Your task to perform on an android device: Go to network settings Image 0: 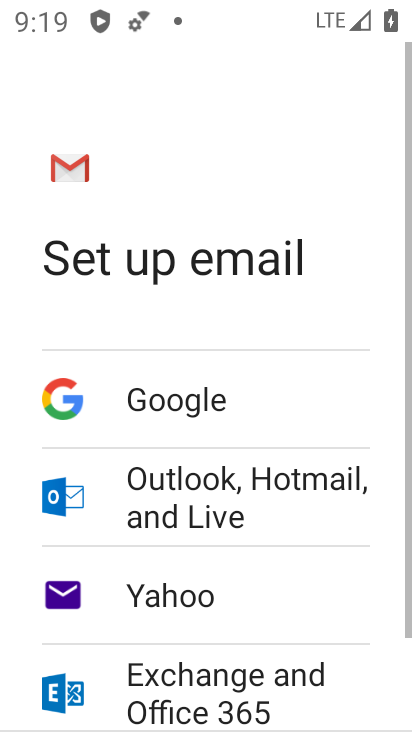
Step 0: press home button
Your task to perform on an android device: Go to network settings Image 1: 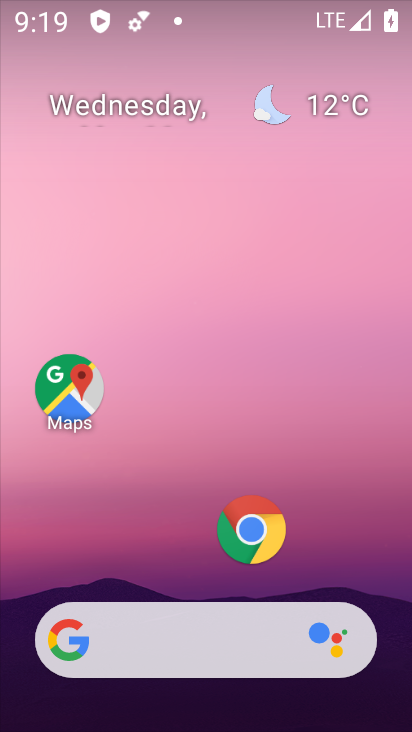
Step 1: drag from (197, 604) to (211, 150)
Your task to perform on an android device: Go to network settings Image 2: 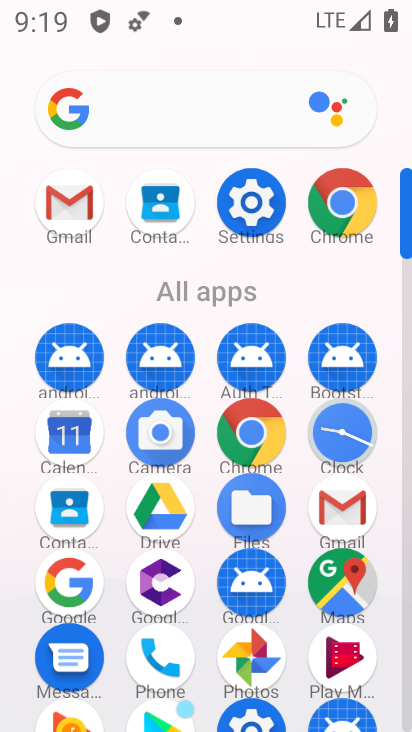
Step 2: click (248, 190)
Your task to perform on an android device: Go to network settings Image 3: 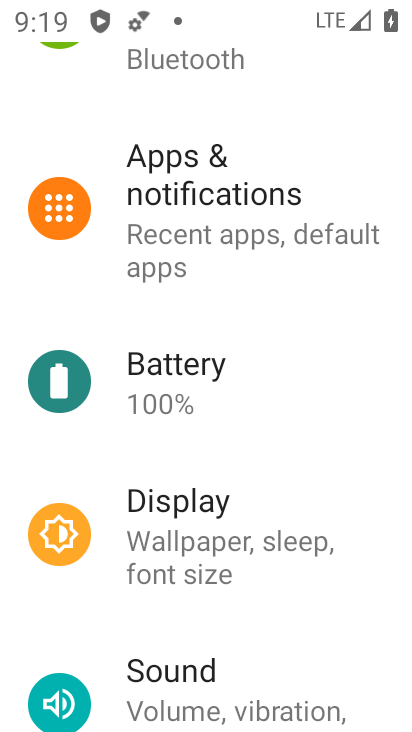
Step 3: drag from (248, 174) to (216, 628)
Your task to perform on an android device: Go to network settings Image 4: 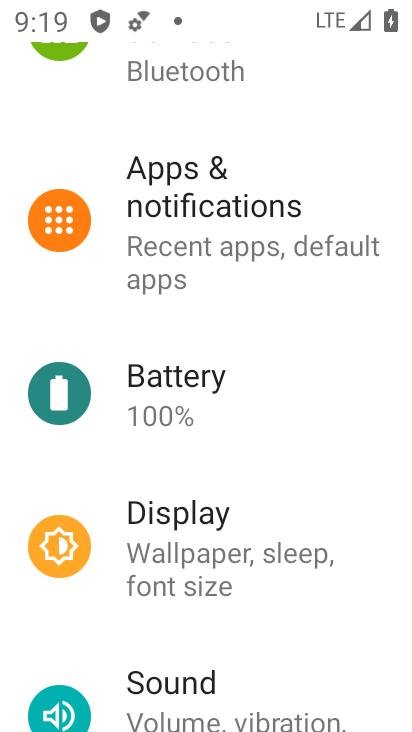
Step 4: drag from (288, 307) to (255, 643)
Your task to perform on an android device: Go to network settings Image 5: 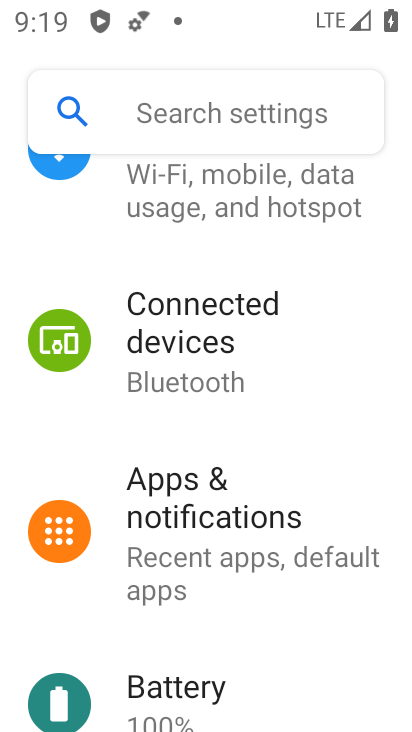
Step 5: drag from (179, 146) to (183, 590)
Your task to perform on an android device: Go to network settings Image 6: 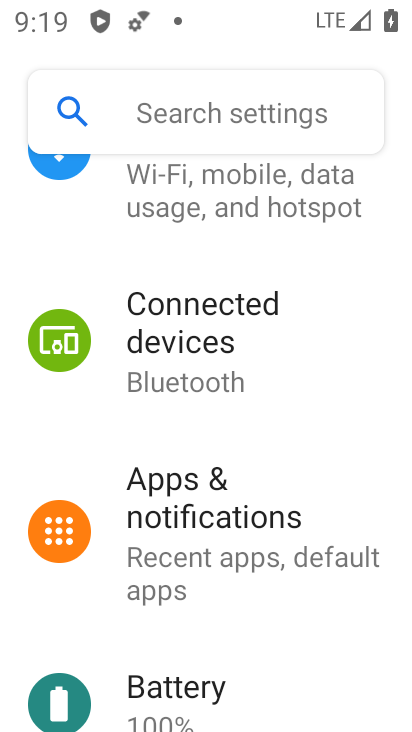
Step 6: drag from (258, 209) to (216, 637)
Your task to perform on an android device: Go to network settings Image 7: 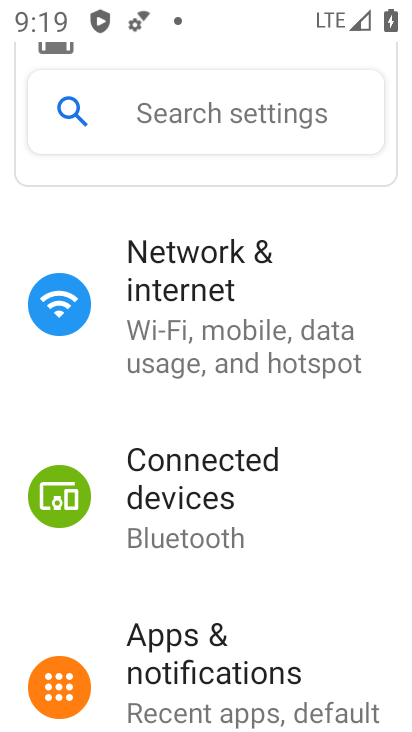
Step 7: click (223, 263)
Your task to perform on an android device: Go to network settings Image 8: 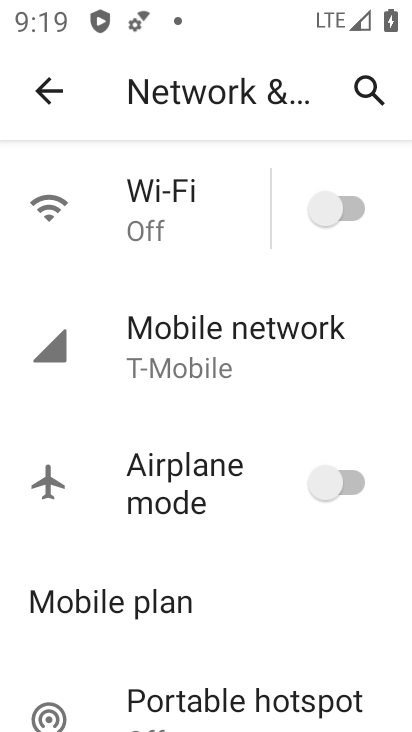
Step 8: drag from (249, 671) to (244, 256)
Your task to perform on an android device: Go to network settings Image 9: 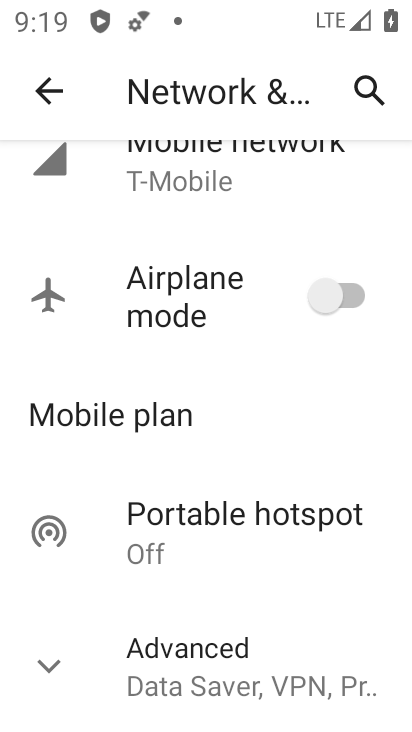
Step 9: click (224, 675)
Your task to perform on an android device: Go to network settings Image 10: 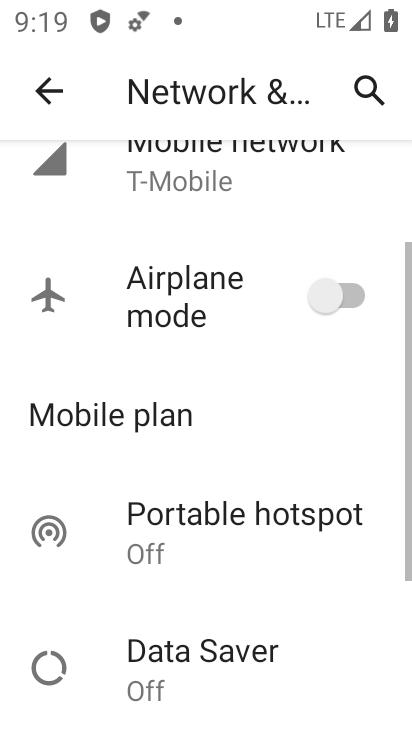
Step 10: task complete